Your task to perform on an android device: delete browsing data in the chrome app Image 0: 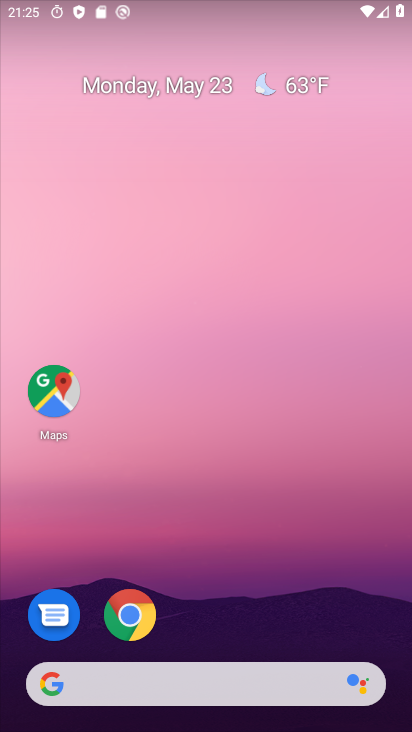
Step 0: click (138, 606)
Your task to perform on an android device: delete browsing data in the chrome app Image 1: 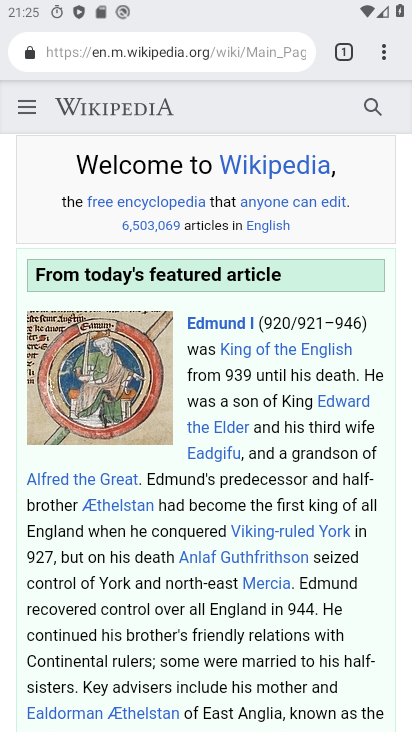
Step 1: click (379, 53)
Your task to perform on an android device: delete browsing data in the chrome app Image 2: 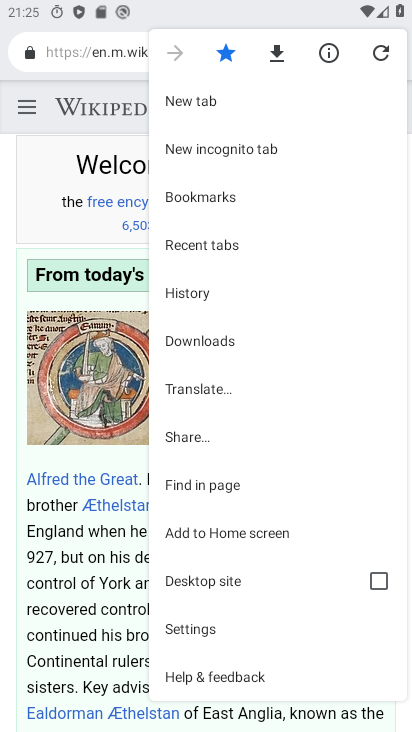
Step 2: drag from (233, 627) to (307, 106)
Your task to perform on an android device: delete browsing data in the chrome app Image 3: 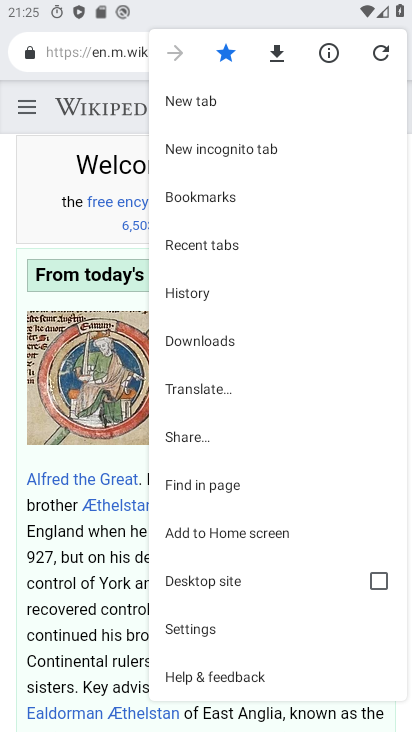
Step 3: click (215, 278)
Your task to perform on an android device: delete browsing data in the chrome app Image 4: 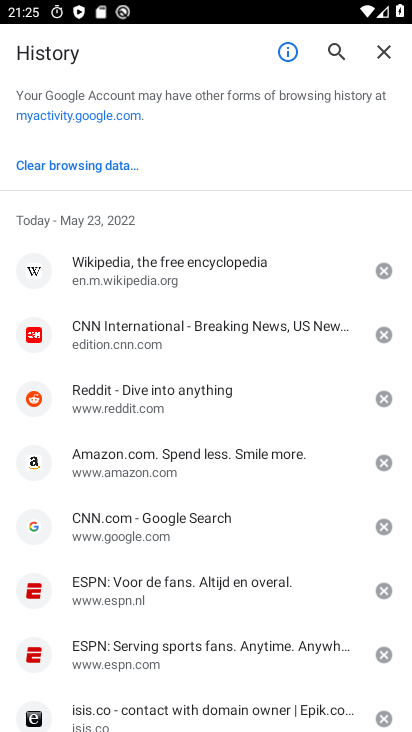
Step 4: drag from (99, 92) to (103, 38)
Your task to perform on an android device: delete browsing data in the chrome app Image 5: 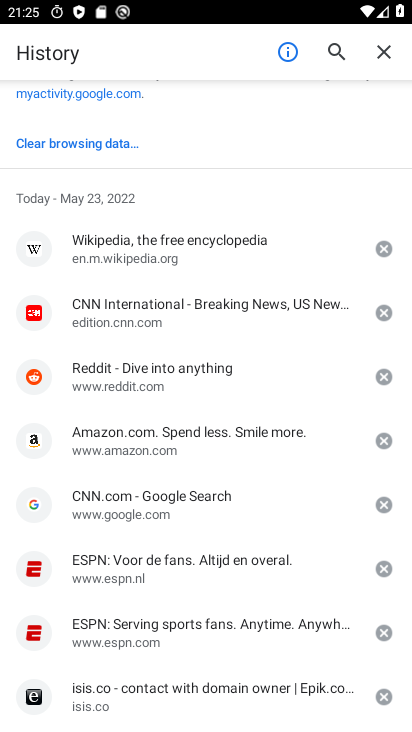
Step 5: click (102, 168)
Your task to perform on an android device: delete browsing data in the chrome app Image 6: 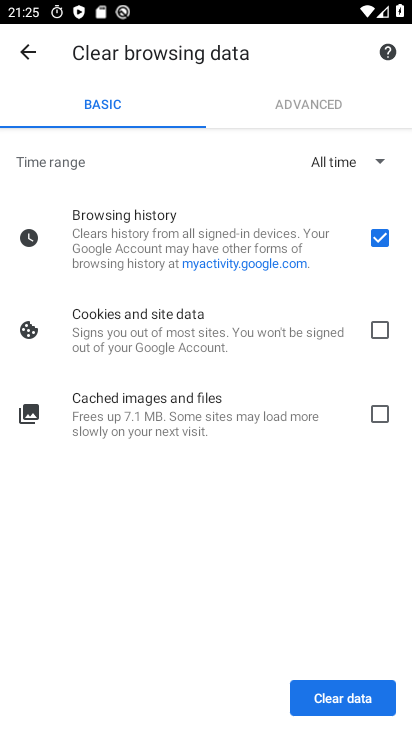
Step 6: click (363, 686)
Your task to perform on an android device: delete browsing data in the chrome app Image 7: 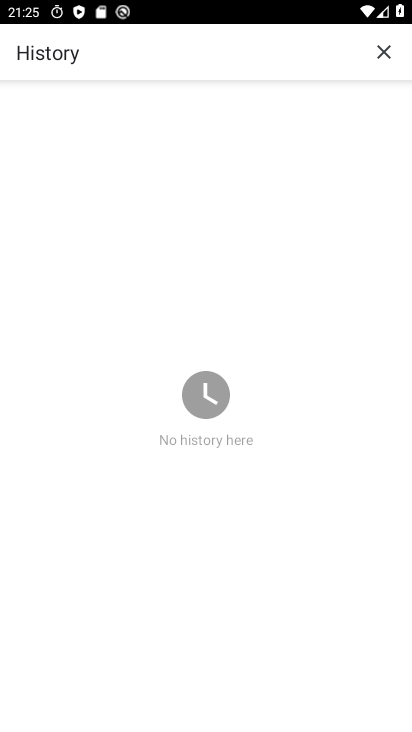
Step 7: task complete